Your task to perform on an android device: What's the latest video from IGN? Image 0: 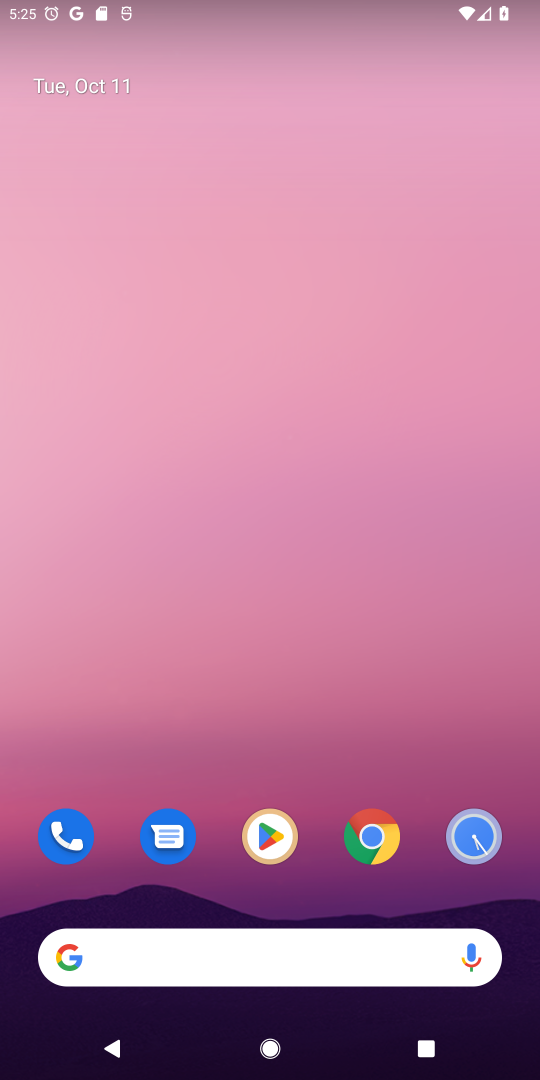
Step 0: click (199, 962)
Your task to perform on an android device: What's the latest video from IGN? Image 1: 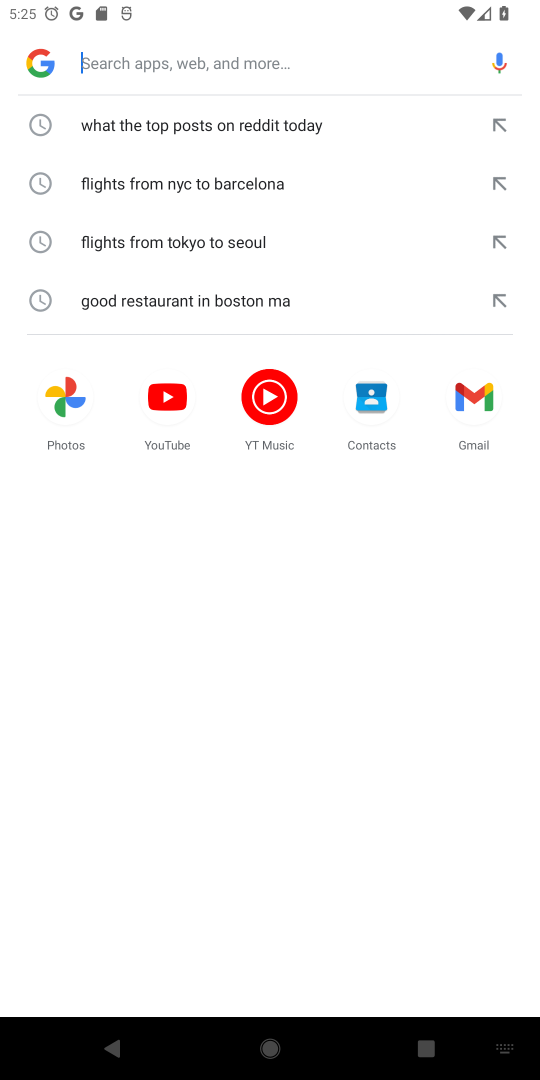
Step 1: type "What's the latest video from IGN?"
Your task to perform on an android device: What's the latest video from IGN? Image 2: 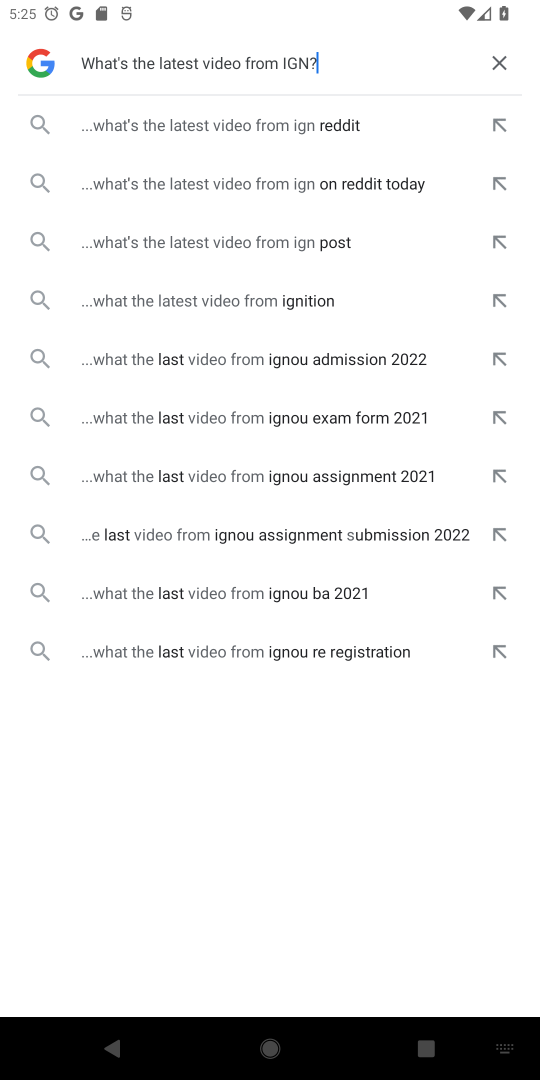
Step 2: click (193, 143)
Your task to perform on an android device: What's the latest video from IGN? Image 3: 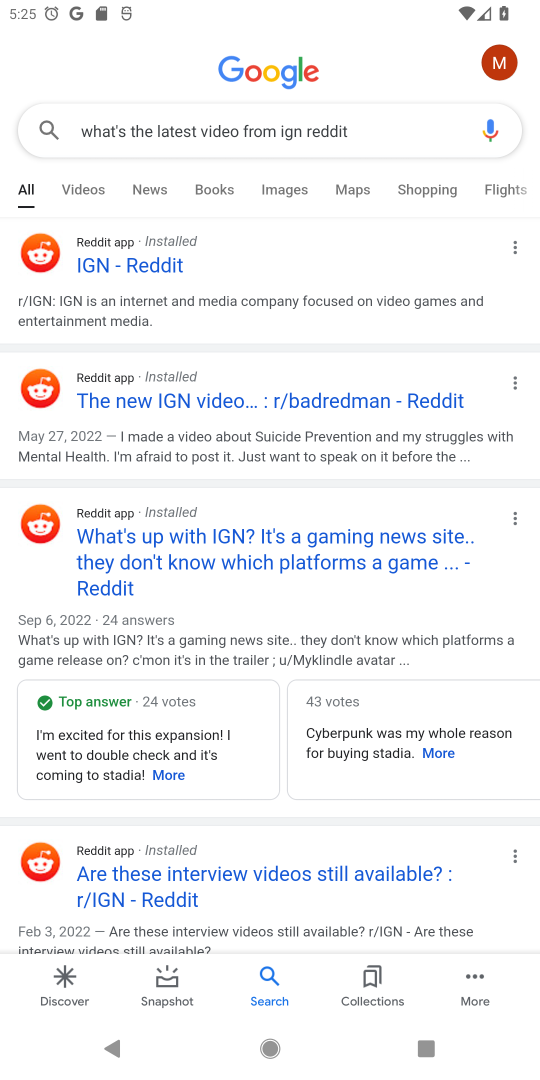
Step 3: task complete